Your task to perform on an android device: create a new album in the google photos Image 0: 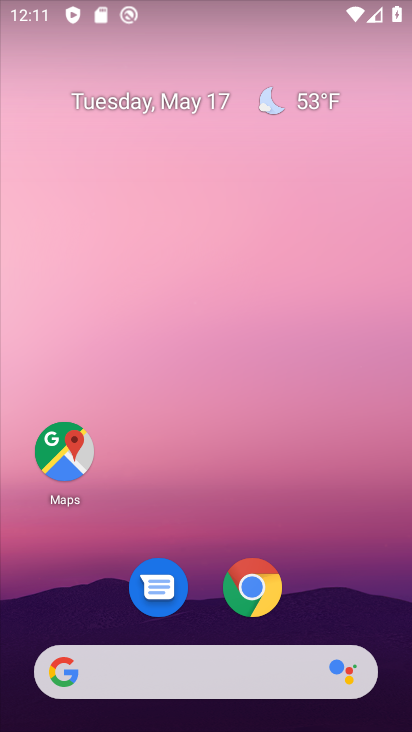
Step 0: drag from (212, 606) to (212, 235)
Your task to perform on an android device: create a new album in the google photos Image 1: 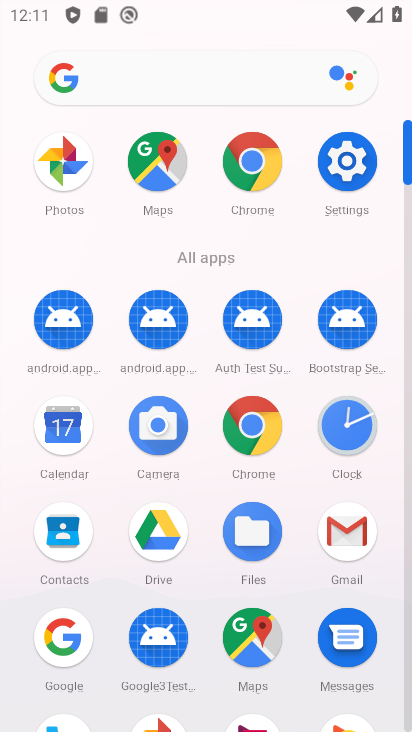
Step 1: drag from (188, 576) to (184, 321)
Your task to perform on an android device: create a new album in the google photos Image 2: 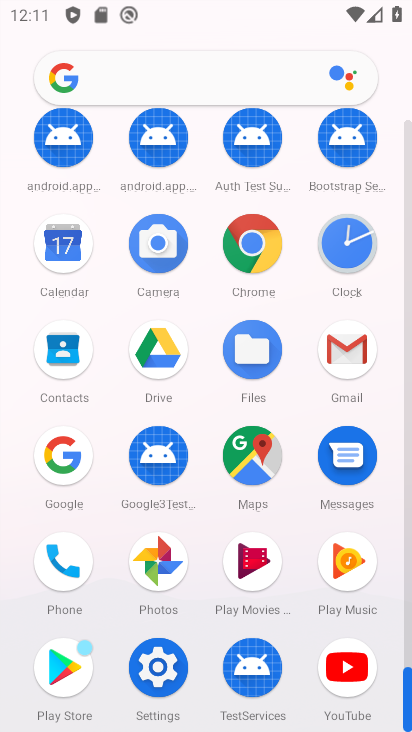
Step 2: click (160, 574)
Your task to perform on an android device: create a new album in the google photos Image 3: 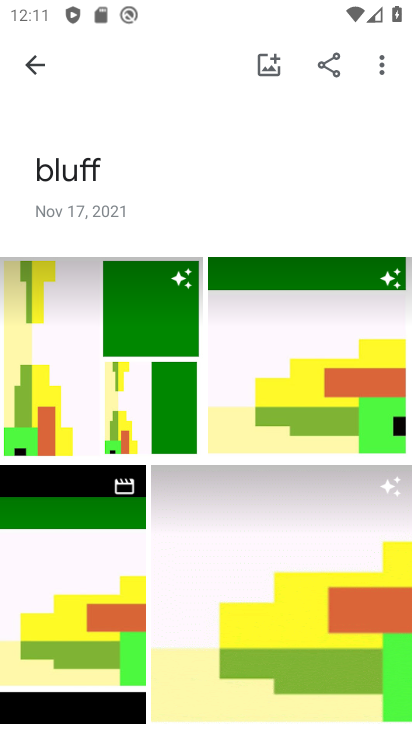
Step 3: click (35, 71)
Your task to perform on an android device: create a new album in the google photos Image 4: 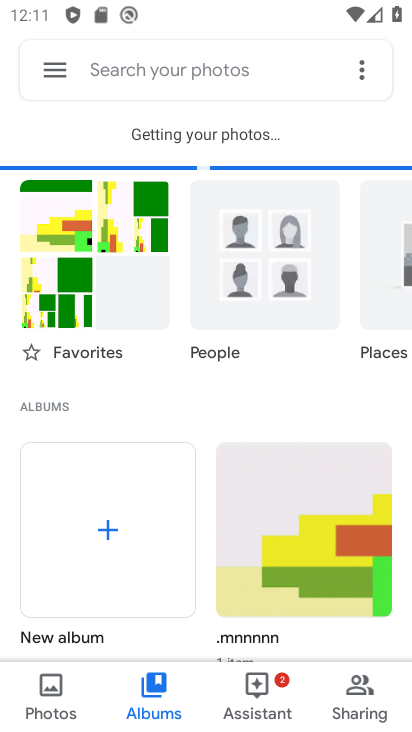
Step 4: click (115, 530)
Your task to perform on an android device: create a new album in the google photos Image 5: 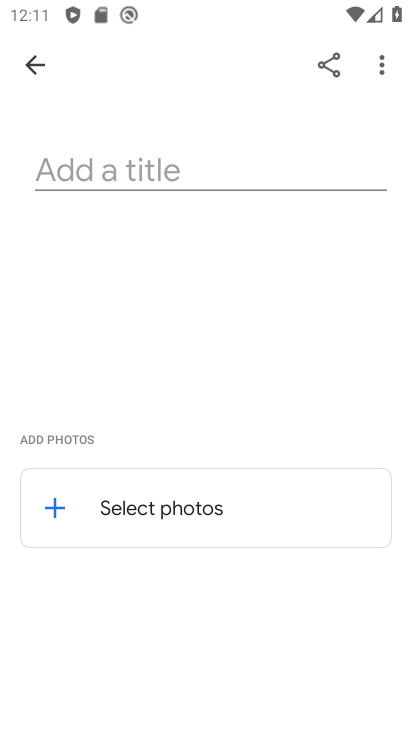
Step 5: click (208, 164)
Your task to perform on an android device: create a new album in the google photos Image 6: 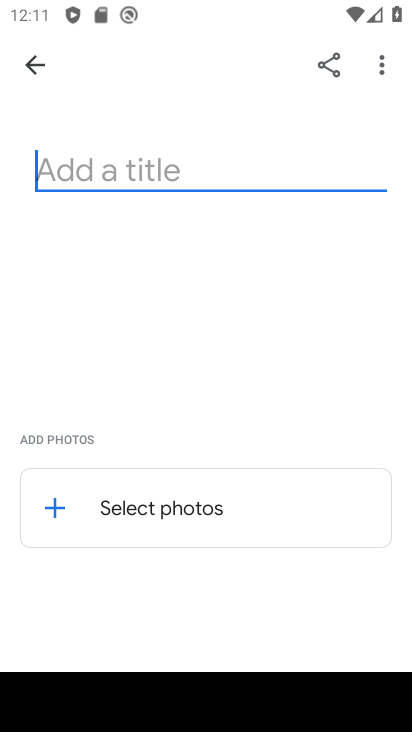
Step 6: type "patriot"
Your task to perform on an android device: create a new album in the google photos Image 7: 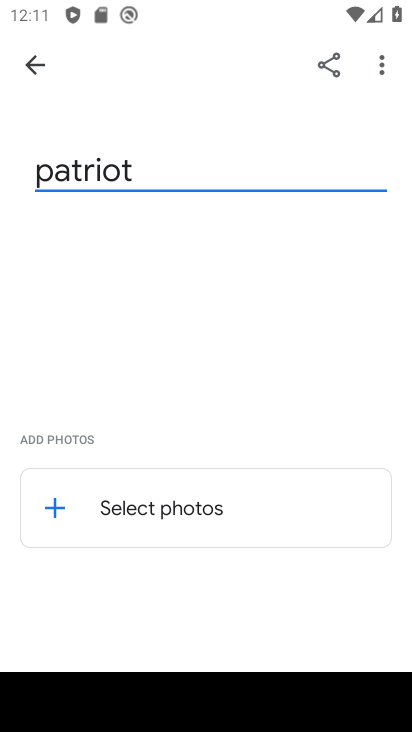
Step 7: click (56, 515)
Your task to perform on an android device: create a new album in the google photos Image 8: 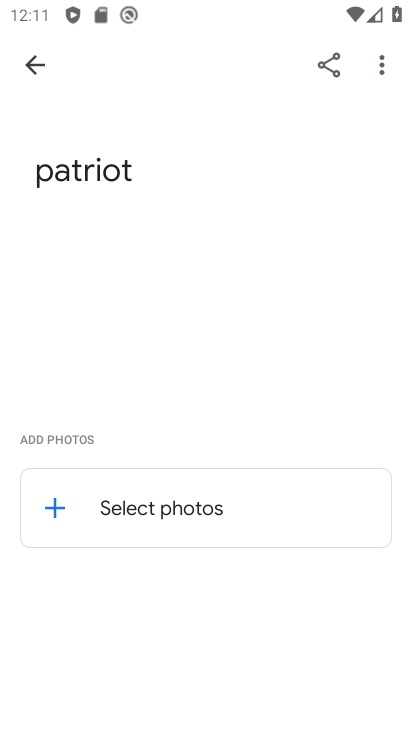
Step 8: click (52, 516)
Your task to perform on an android device: create a new album in the google photos Image 9: 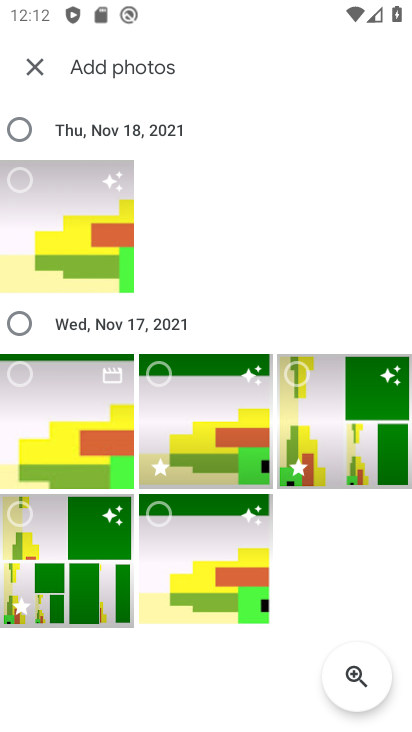
Step 9: click (37, 455)
Your task to perform on an android device: create a new album in the google photos Image 10: 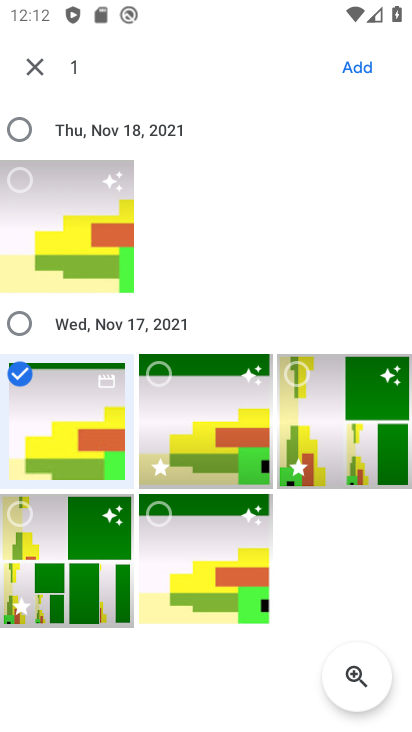
Step 10: click (24, 557)
Your task to perform on an android device: create a new album in the google photos Image 11: 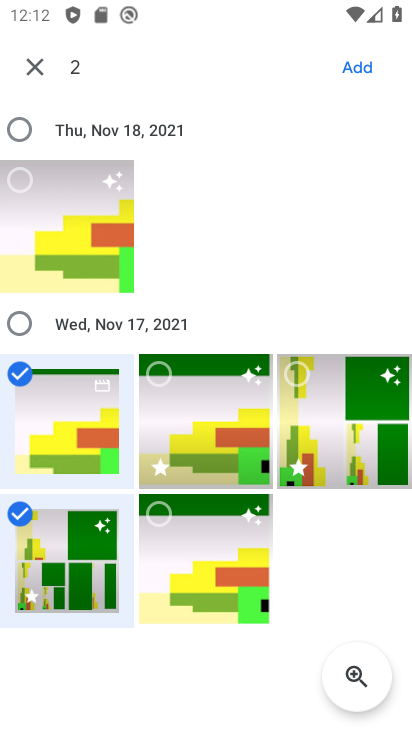
Step 11: click (202, 551)
Your task to perform on an android device: create a new album in the google photos Image 12: 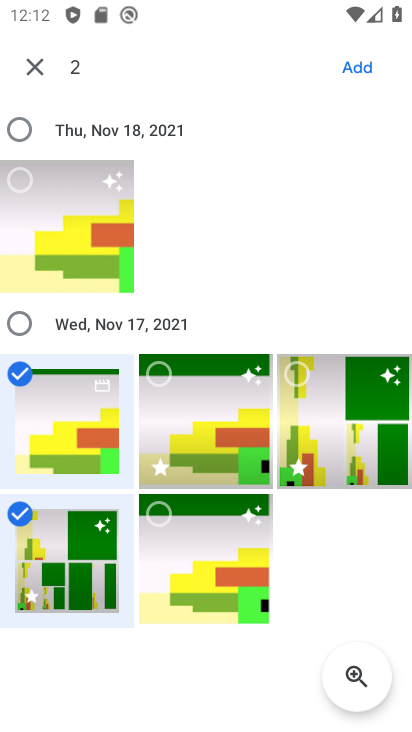
Step 12: click (181, 390)
Your task to perform on an android device: create a new album in the google photos Image 13: 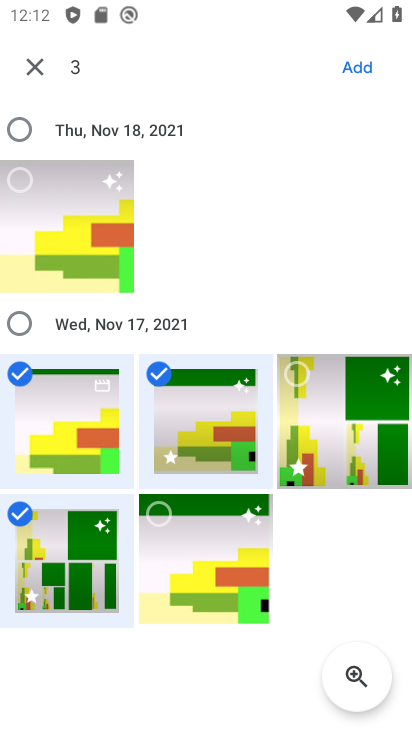
Step 13: click (371, 70)
Your task to perform on an android device: create a new album in the google photos Image 14: 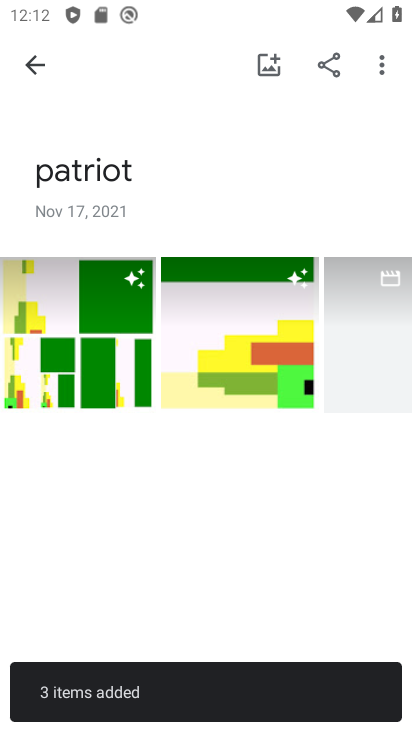
Step 14: task complete